Your task to perform on an android device: Open the calendar app, open the side menu, and click the "Day" option Image 0: 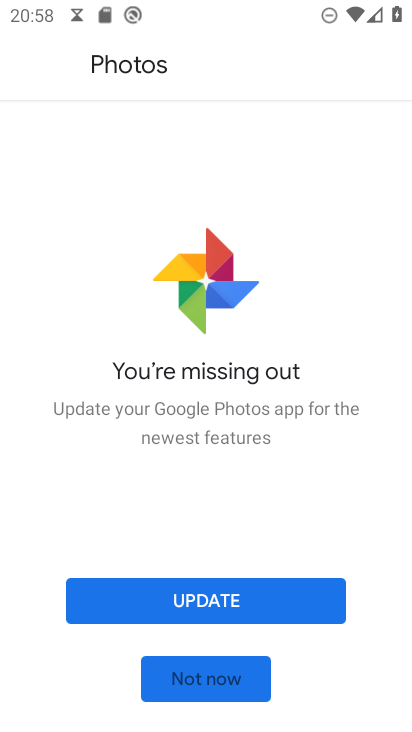
Step 0: press home button
Your task to perform on an android device: Open the calendar app, open the side menu, and click the "Day" option Image 1: 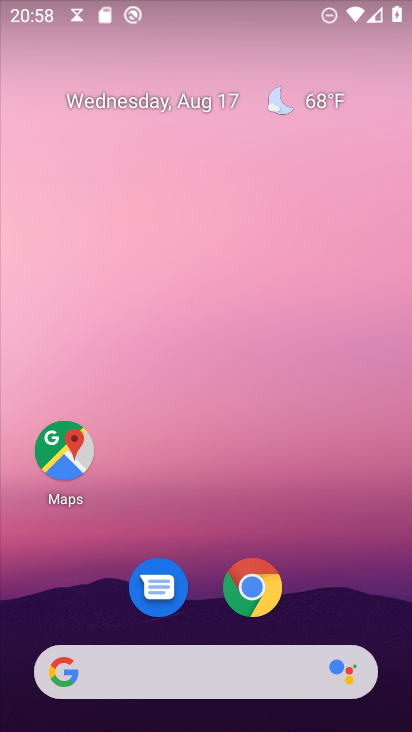
Step 1: drag from (17, 703) to (119, 447)
Your task to perform on an android device: Open the calendar app, open the side menu, and click the "Day" option Image 2: 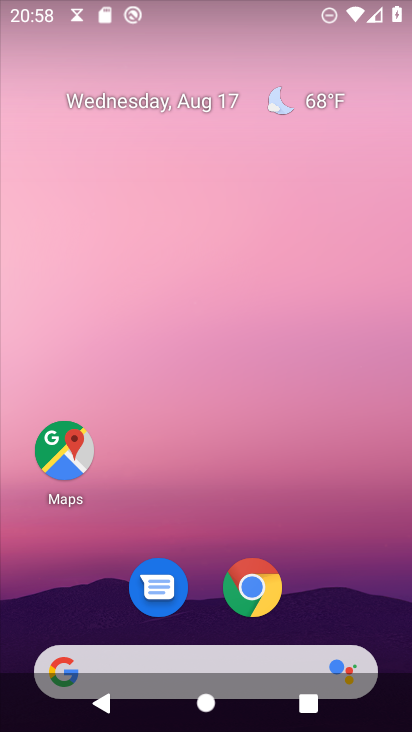
Step 2: drag from (23, 697) to (212, 271)
Your task to perform on an android device: Open the calendar app, open the side menu, and click the "Day" option Image 3: 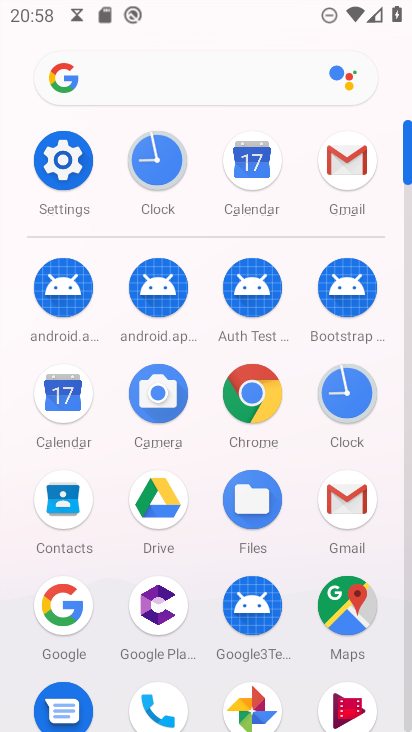
Step 3: click (250, 170)
Your task to perform on an android device: Open the calendar app, open the side menu, and click the "Day" option Image 4: 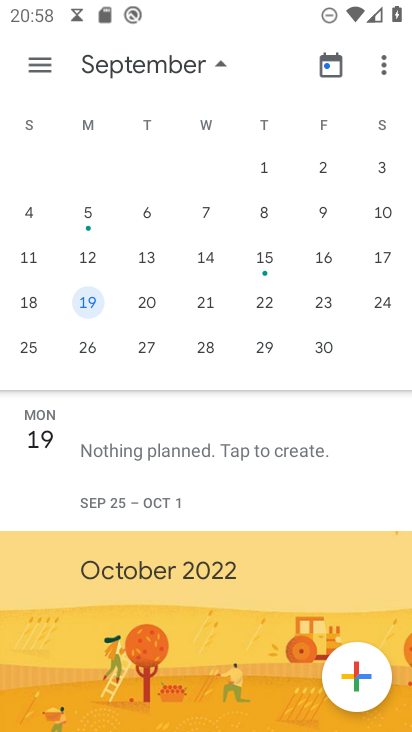
Step 4: click (49, 68)
Your task to perform on an android device: Open the calendar app, open the side menu, and click the "Day" option Image 5: 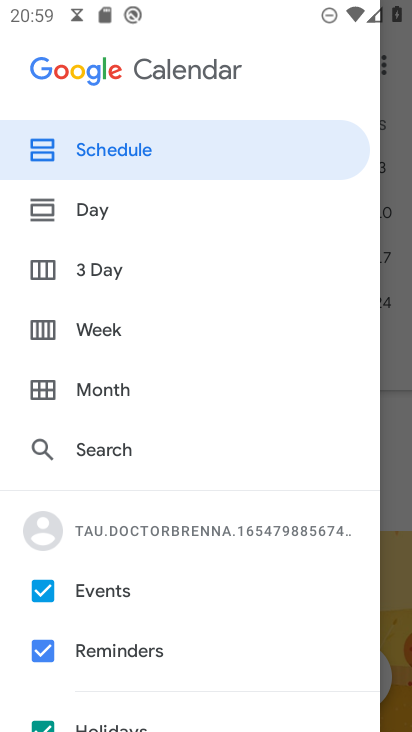
Step 5: click (98, 204)
Your task to perform on an android device: Open the calendar app, open the side menu, and click the "Day" option Image 6: 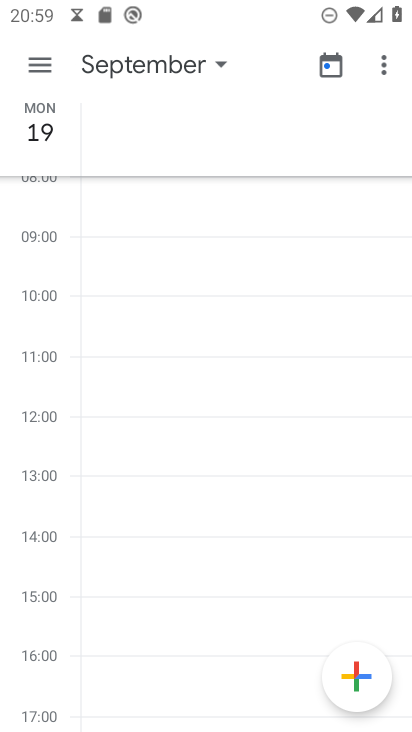
Step 6: click (166, 59)
Your task to perform on an android device: Open the calendar app, open the side menu, and click the "Day" option Image 7: 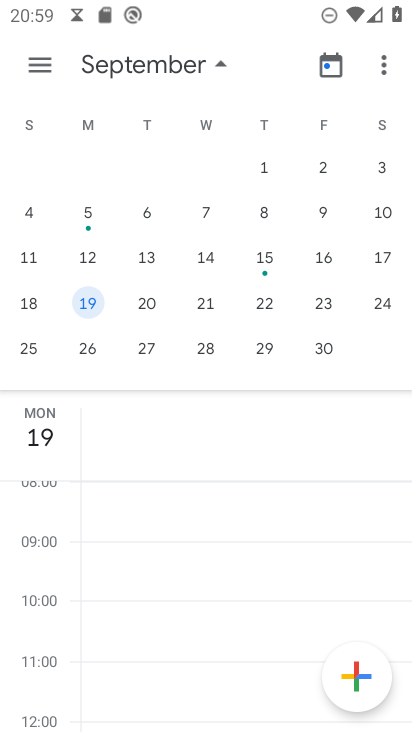
Step 7: task complete